Your task to perform on an android device: all mails in gmail Image 0: 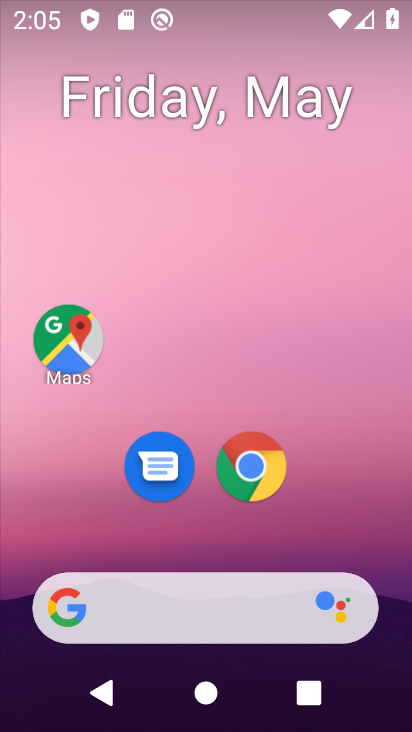
Step 0: drag from (375, 511) to (367, 61)
Your task to perform on an android device: all mails in gmail Image 1: 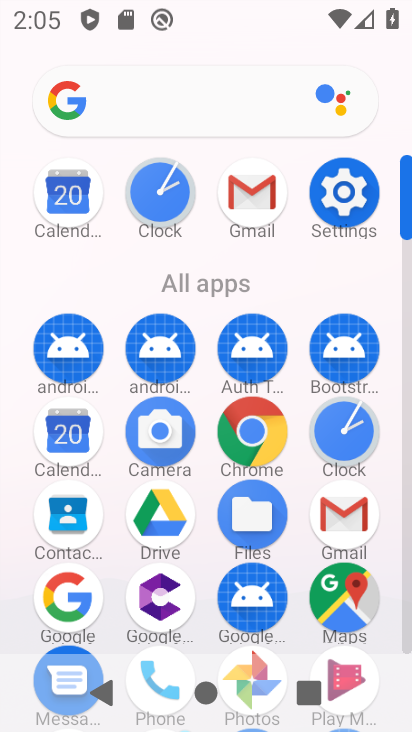
Step 1: click (272, 170)
Your task to perform on an android device: all mails in gmail Image 2: 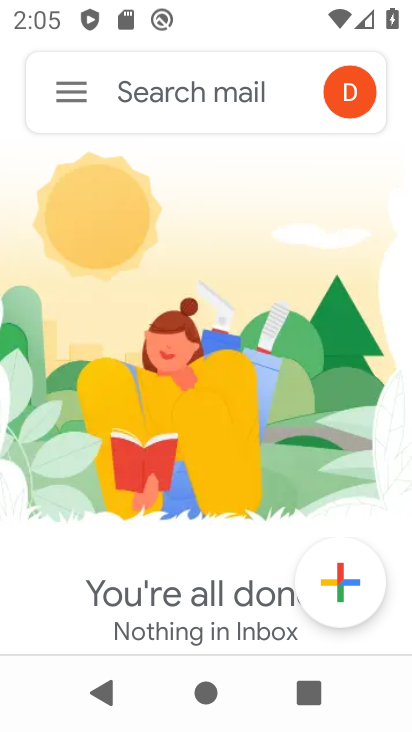
Step 2: click (56, 109)
Your task to perform on an android device: all mails in gmail Image 3: 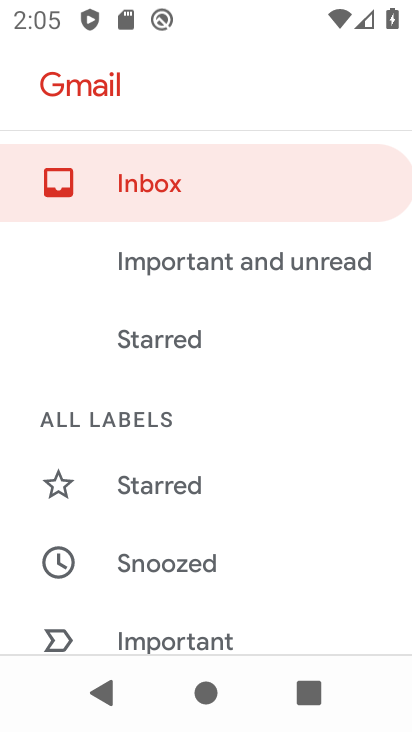
Step 3: drag from (137, 403) to (106, 166)
Your task to perform on an android device: all mails in gmail Image 4: 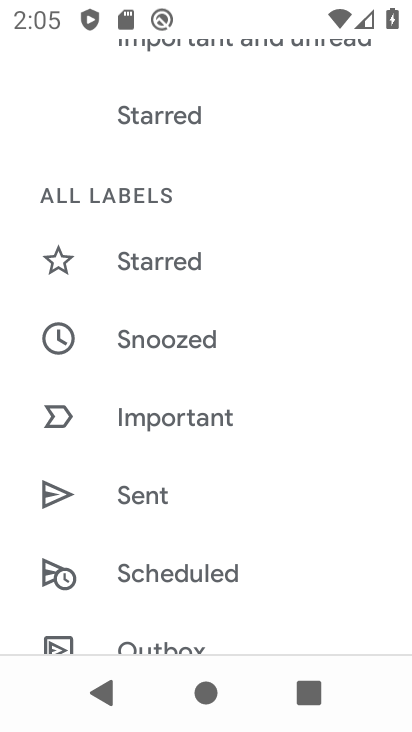
Step 4: drag from (132, 512) to (141, 261)
Your task to perform on an android device: all mails in gmail Image 5: 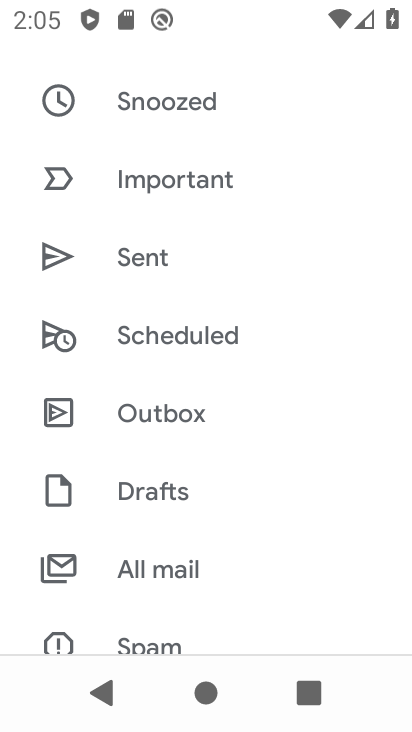
Step 5: click (206, 558)
Your task to perform on an android device: all mails in gmail Image 6: 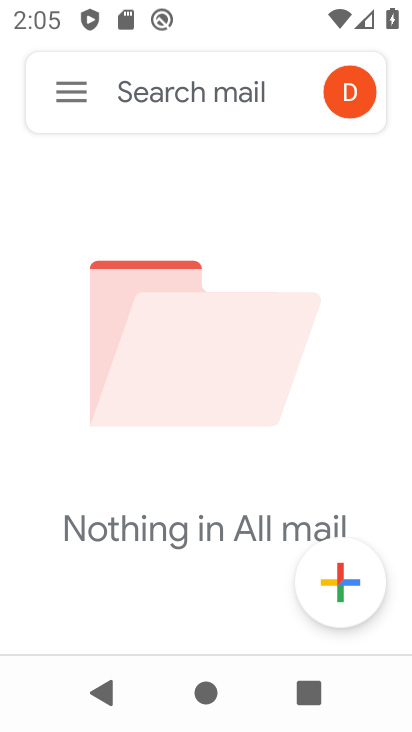
Step 6: task complete